Your task to perform on an android device: open device folders in google photos Image 0: 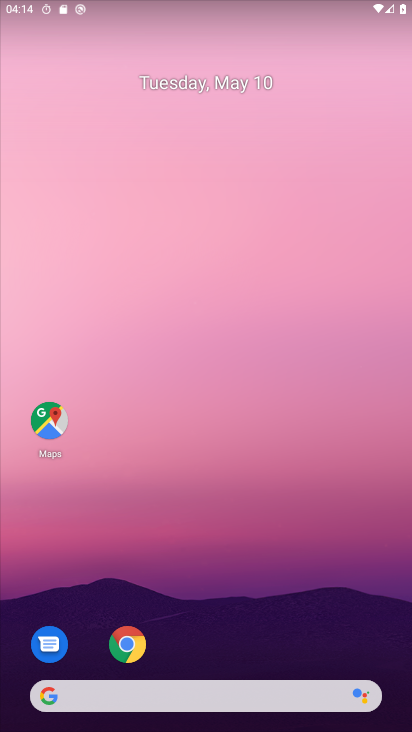
Step 0: drag from (214, 649) to (206, 125)
Your task to perform on an android device: open device folders in google photos Image 1: 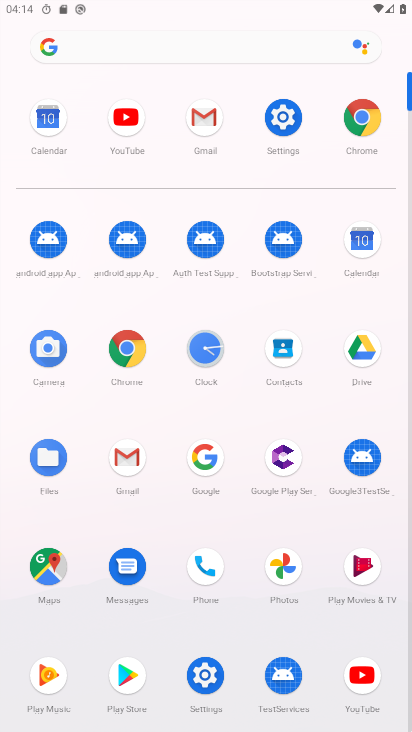
Step 1: click (285, 558)
Your task to perform on an android device: open device folders in google photos Image 2: 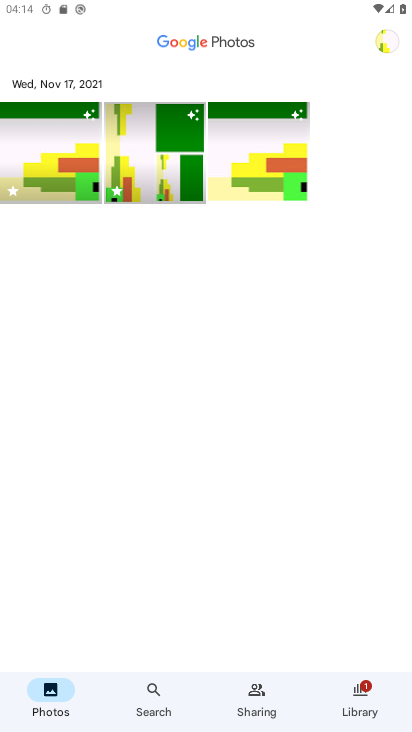
Step 2: click (145, 700)
Your task to perform on an android device: open device folders in google photos Image 3: 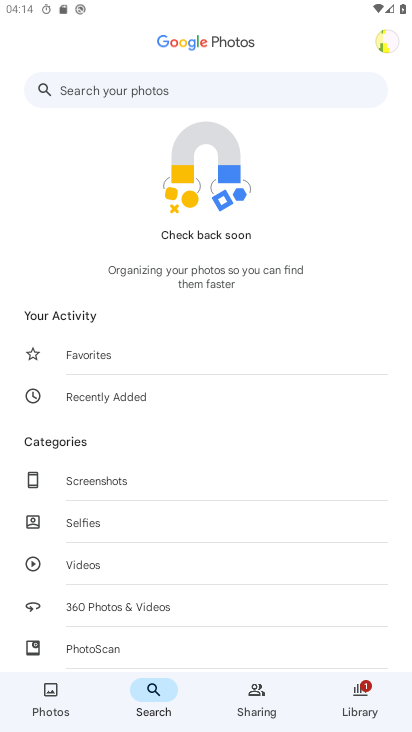
Step 3: click (116, 83)
Your task to perform on an android device: open device folders in google photos Image 4: 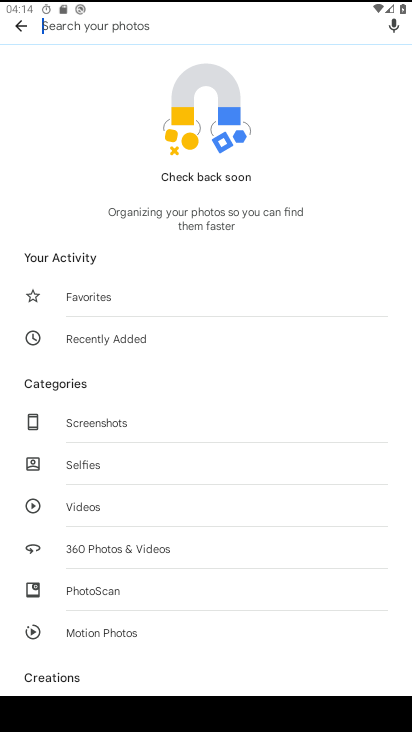
Step 4: type "device"
Your task to perform on an android device: open device folders in google photos Image 5: 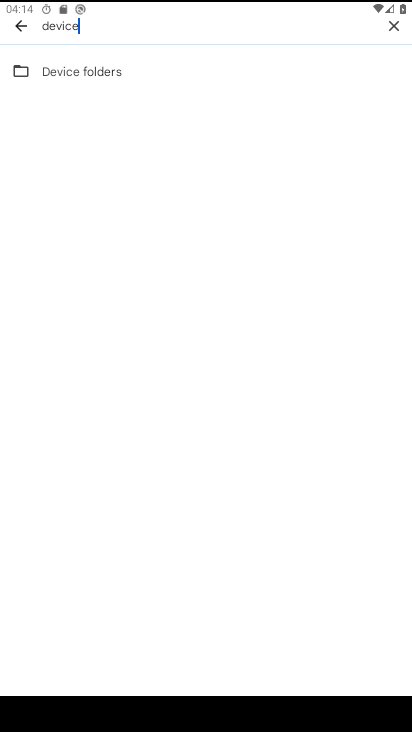
Step 5: click (133, 75)
Your task to perform on an android device: open device folders in google photos Image 6: 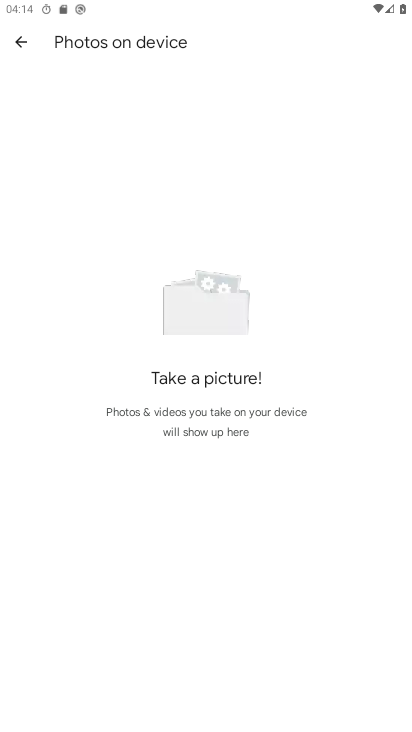
Step 6: task complete